Your task to perform on an android device: Clear the shopping cart on walmart.com. Search for "apple airpods pro" on walmart.com, select the first entry, and add it to the cart. Image 0: 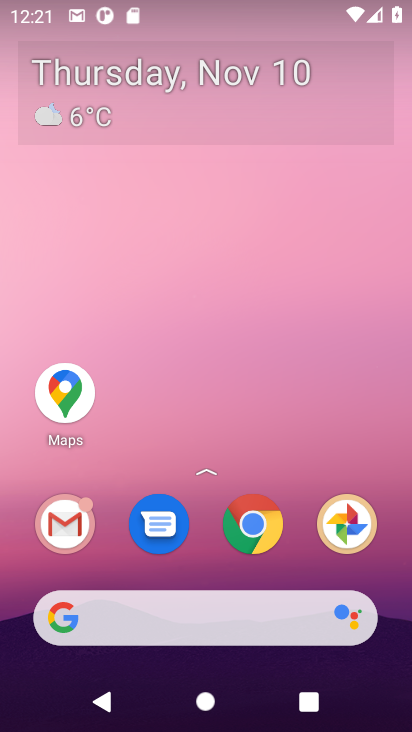
Step 0: click (263, 527)
Your task to perform on an android device: Clear the shopping cart on walmart.com. Search for "apple airpods pro" on walmart.com, select the first entry, and add it to the cart. Image 1: 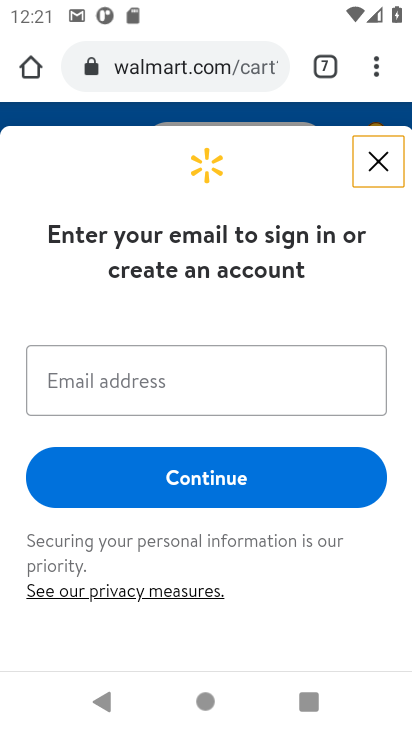
Step 1: click (383, 161)
Your task to perform on an android device: Clear the shopping cart on walmart.com. Search for "apple airpods pro" on walmart.com, select the first entry, and add it to the cart. Image 2: 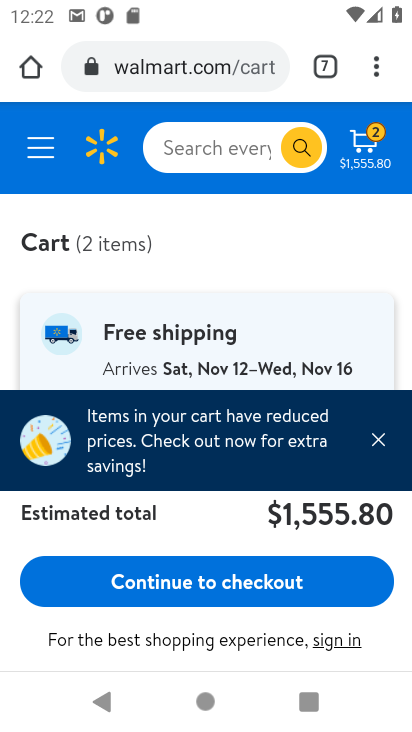
Step 2: click (215, 138)
Your task to perform on an android device: Clear the shopping cart on walmart.com. Search for "apple airpods pro" on walmart.com, select the first entry, and add it to the cart. Image 3: 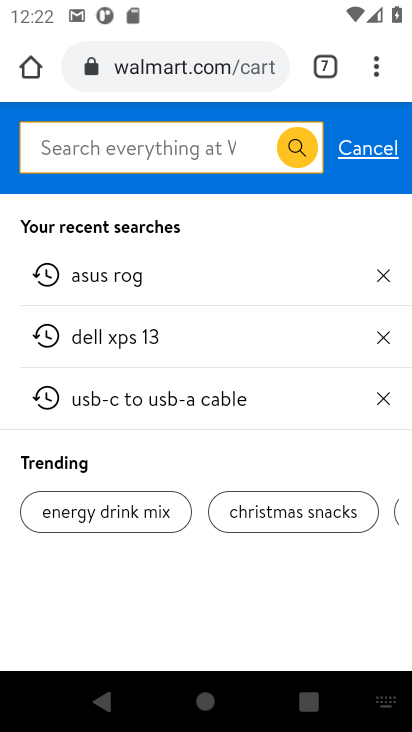
Step 3: type "apple airpods pro"
Your task to perform on an android device: Clear the shopping cart on walmart.com. Search for "apple airpods pro" on walmart.com, select the first entry, and add it to the cart. Image 4: 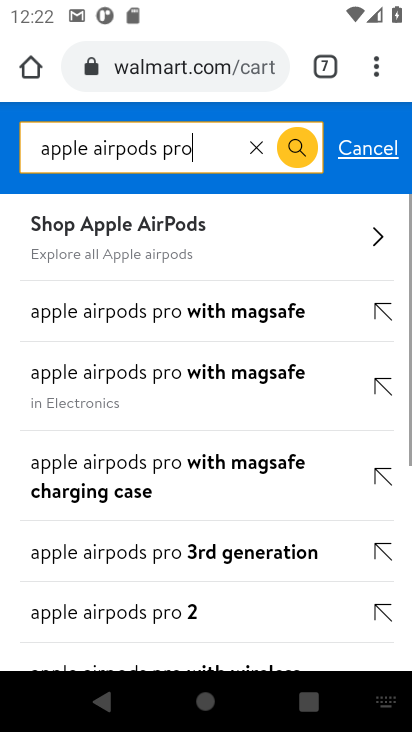
Step 4: click (180, 227)
Your task to perform on an android device: Clear the shopping cart on walmart.com. Search for "apple airpods pro" on walmart.com, select the first entry, and add it to the cart. Image 5: 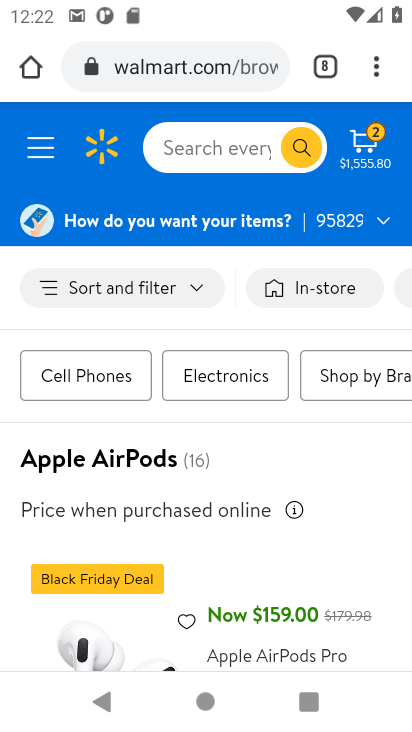
Step 5: drag from (238, 547) to (269, 252)
Your task to perform on an android device: Clear the shopping cart on walmart.com. Search for "apple airpods pro" on walmart.com, select the first entry, and add it to the cart. Image 6: 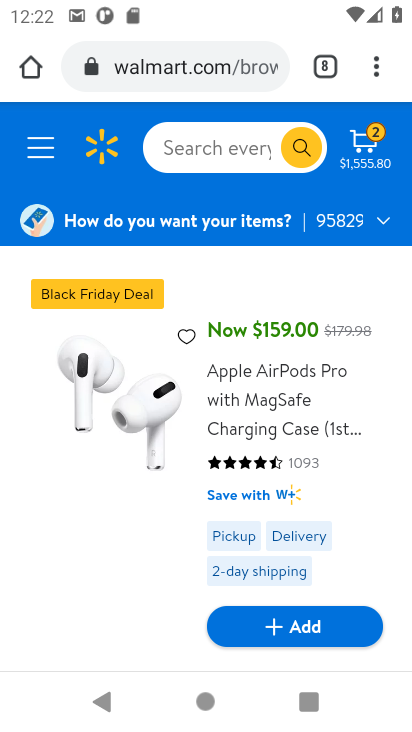
Step 6: click (312, 619)
Your task to perform on an android device: Clear the shopping cart on walmart.com. Search for "apple airpods pro" on walmart.com, select the first entry, and add it to the cart. Image 7: 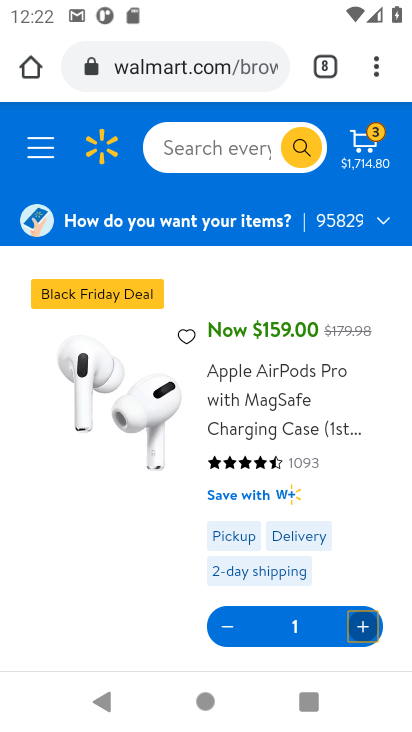
Step 7: task complete